Your task to perform on an android device: What's the weather? Image 0: 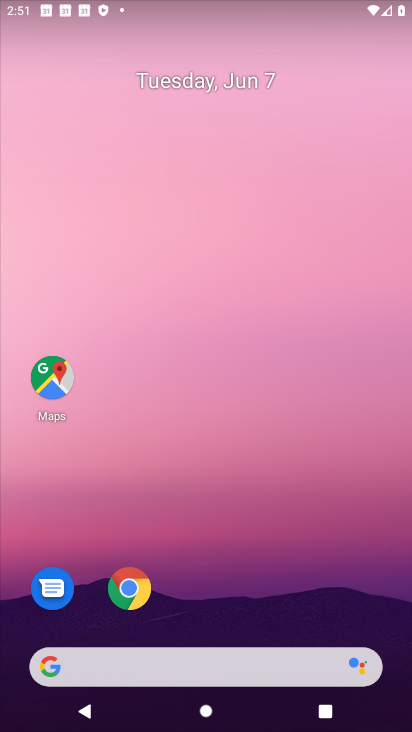
Step 0: click (197, 663)
Your task to perform on an android device: What's the weather? Image 1: 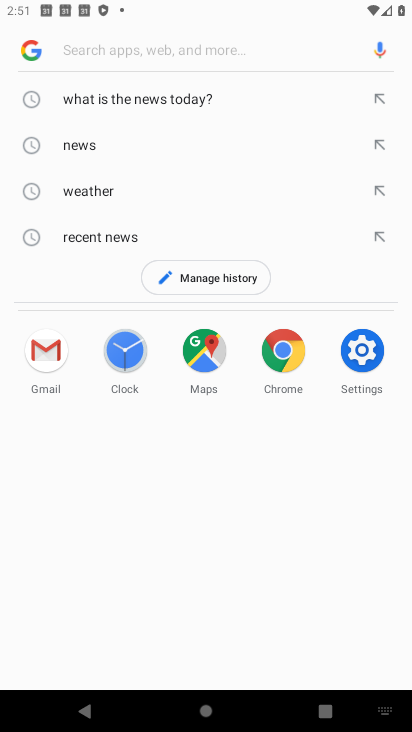
Step 1: click (135, 202)
Your task to perform on an android device: What's the weather? Image 2: 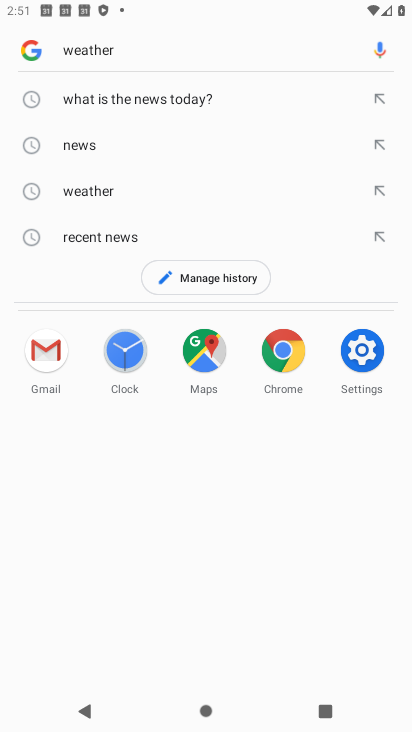
Step 2: task complete